Your task to perform on an android device: turn off location Image 0: 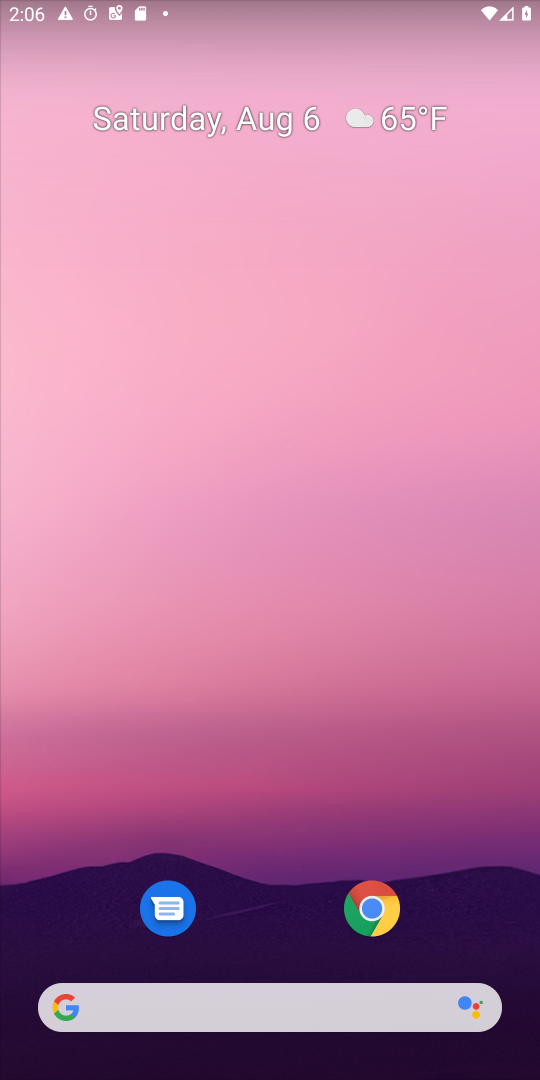
Step 0: drag from (263, 847) to (260, 291)
Your task to perform on an android device: turn off location Image 1: 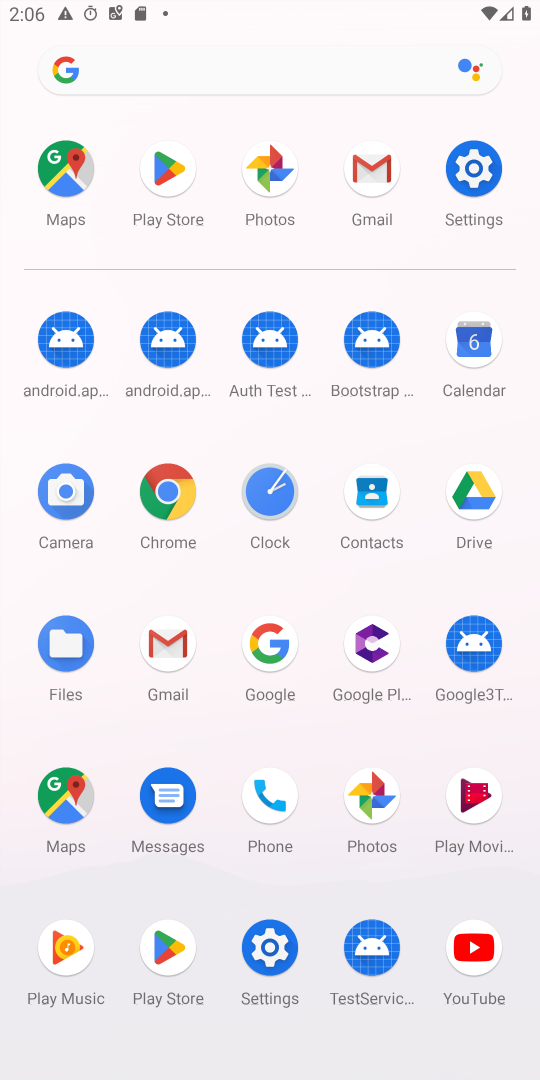
Step 1: click (269, 960)
Your task to perform on an android device: turn off location Image 2: 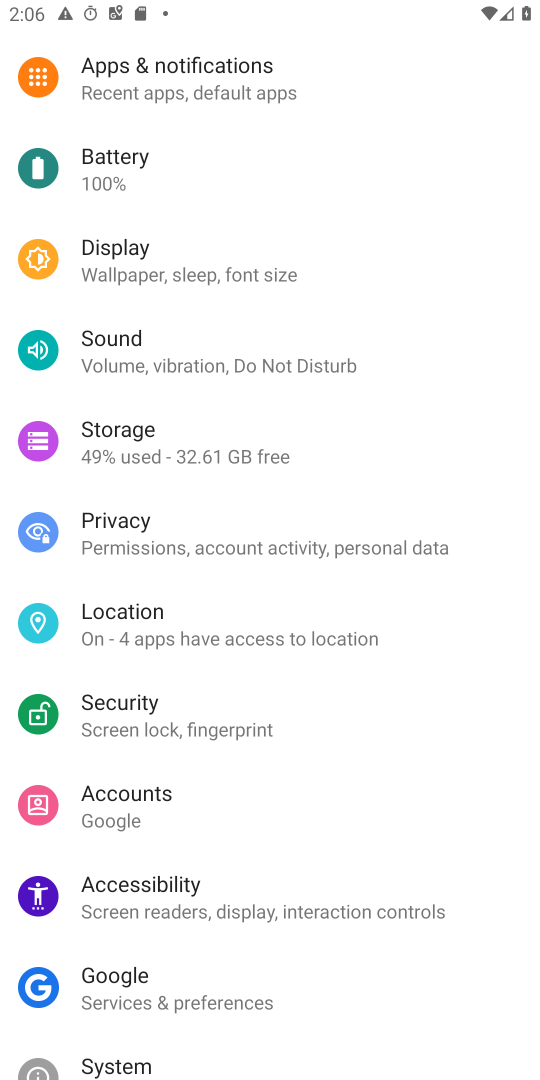
Step 2: click (152, 626)
Your task to perform on an android device: turn off location Image 3: 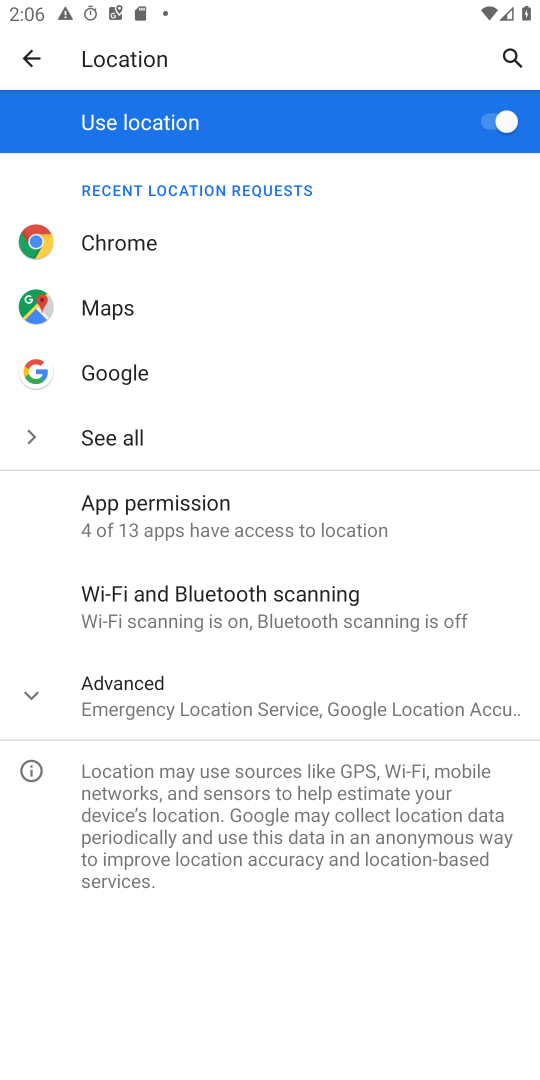
Step 3: click (202, 712)
Your task to perform on an android device: turn off location Image 4: 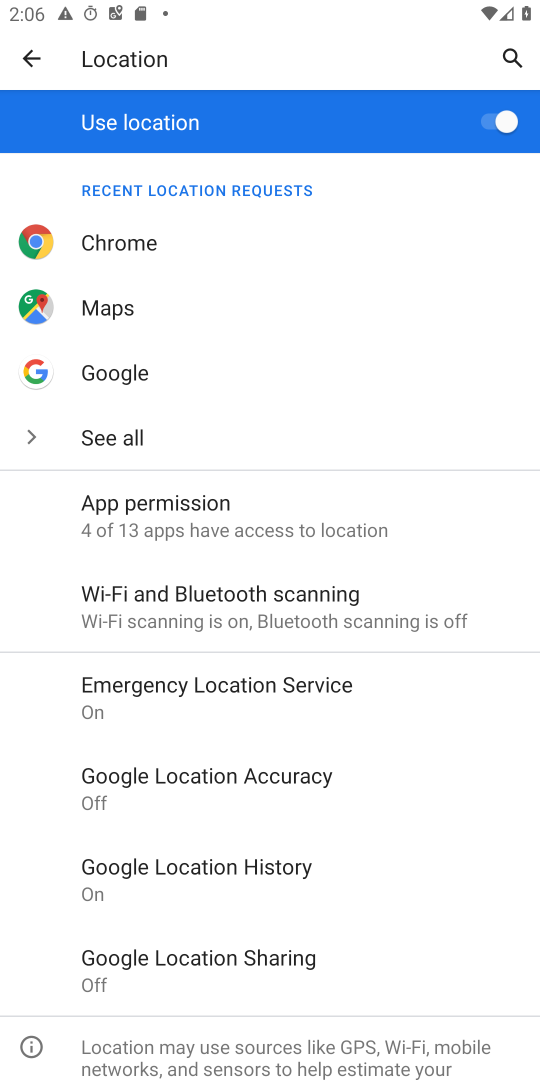
Step 4: click (492, 112)
Your task to perform on an android device: turn off location Image 5: 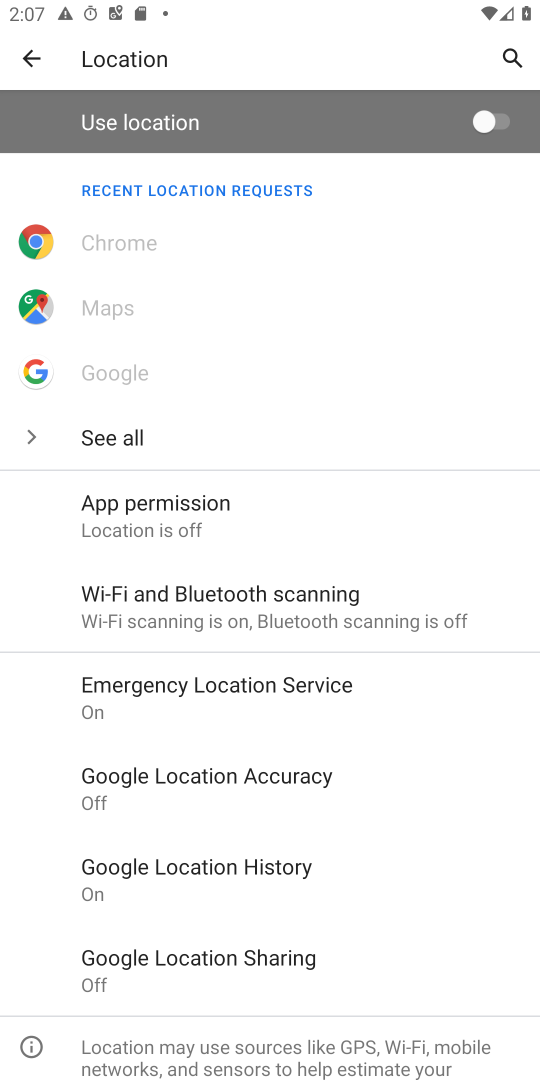
Step 5: task complete